Your task to perform on an android device: Do I have any events tomorrow? Image 0: 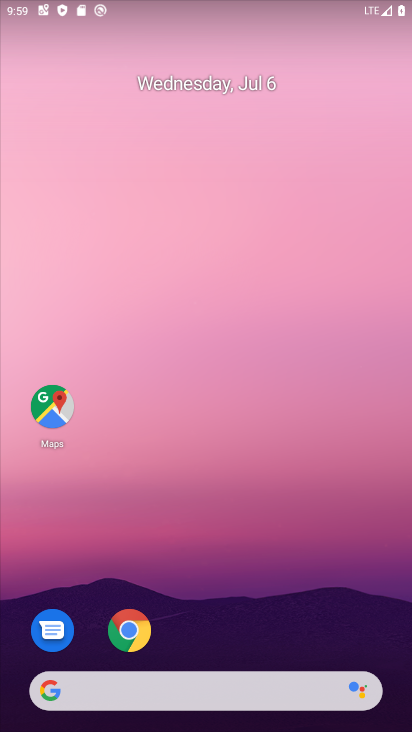
Step 0: drag from (380, 629) to (311, 77)
Your task to perform on an android device: Do I have any events tomorrow? Image 1: 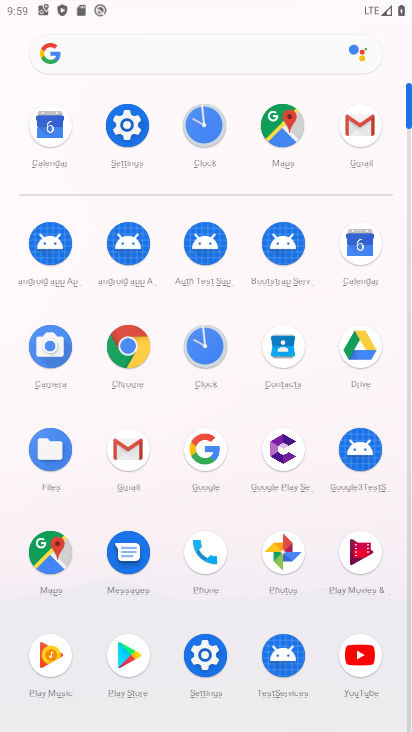
Step 1: click (362, 244)
Your task to perform on an android device: Do I have any events tomorrow? Image 2: 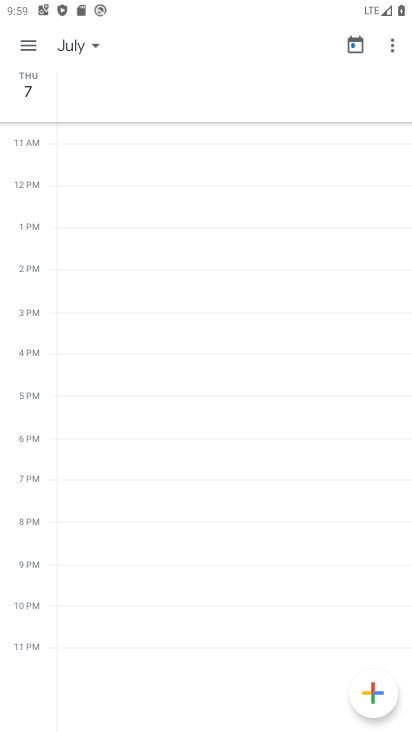
Step 2: click (89, 49)
Your task to perform on an android device: Do I have any events tomorrow? Image 3: 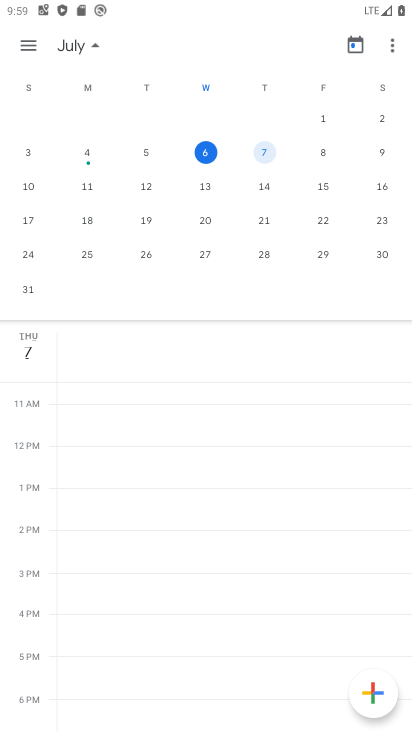
Step 3: click (262, 151)
Your task to perform on an android device: Do I have any events tomorrow? Image 4: 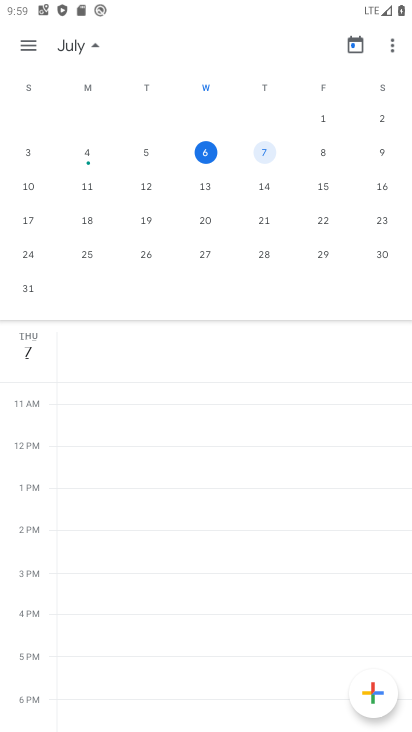
Step 4: task complete